Your task to perform on an android device: allow notifications from all sites in the chrome app Image 0: 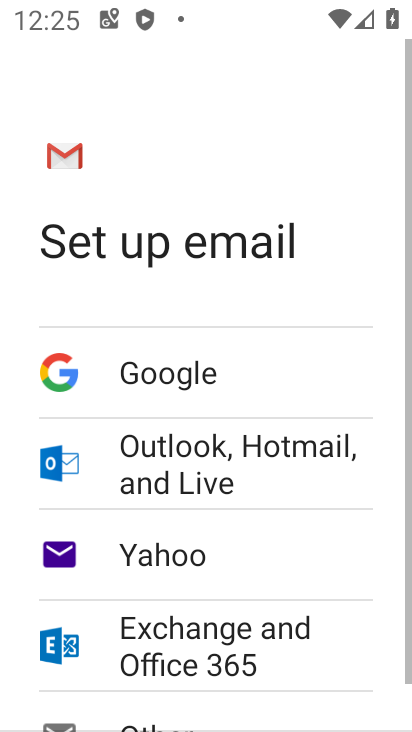
Step 0: press home button
Your task to perform on an android device: allow notifications from all sites in the chrome app Image 1: 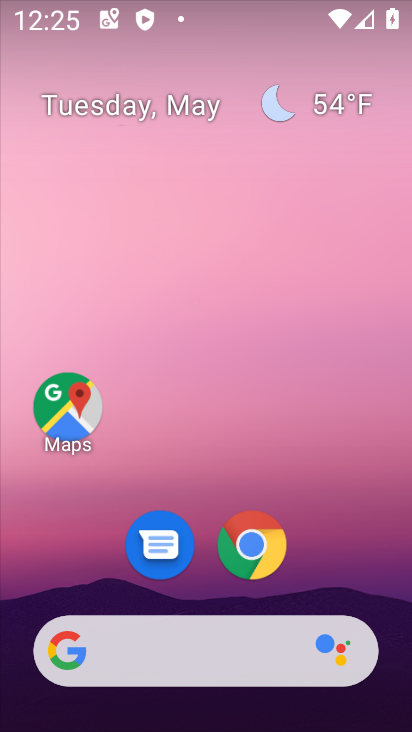
Step 1: click (245, 545)
Your task to perform on an android device: allow notifications from all sites in the chrome app Image 2: 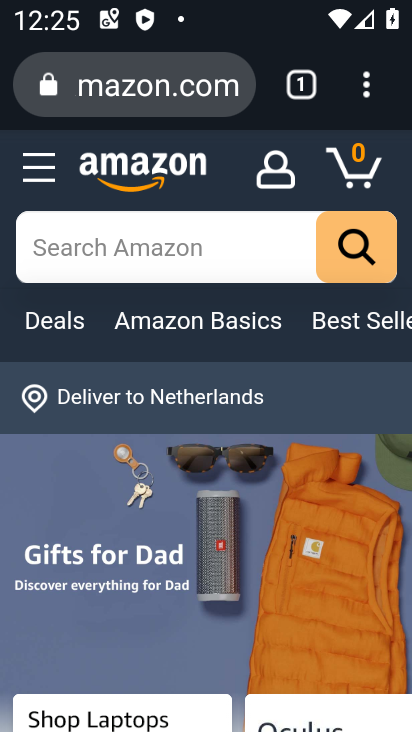
Step 2: click (376, 106)
Your task to perform on an android device: allow notifications from all sites in the chrome app Image 3: 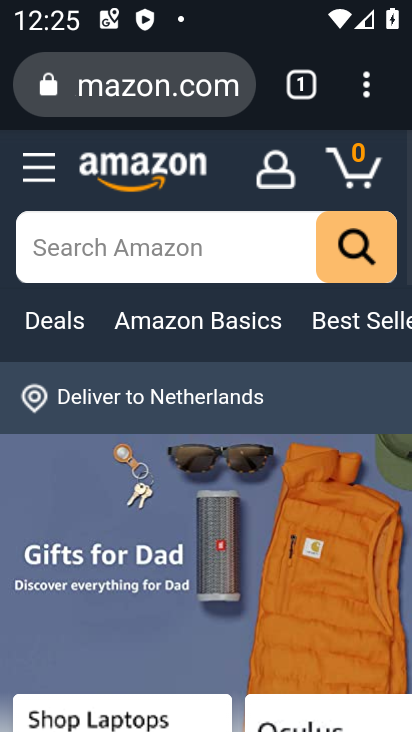
Step 3: click (360, 118)
Your task to perform on an android device: allow notifications from all sites in the chrome app Image 4: 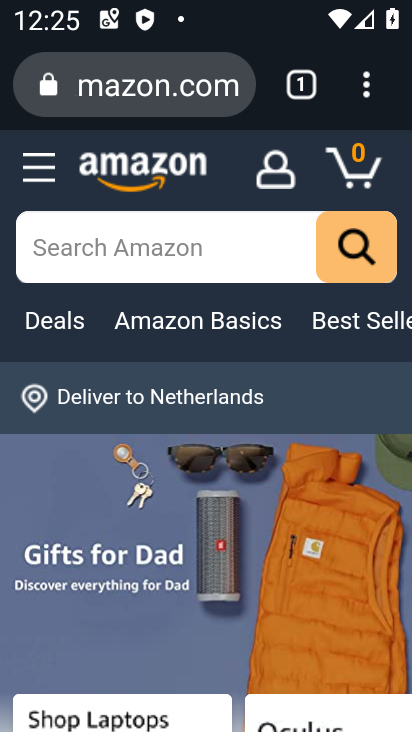
Step 4: click (361, 102)
Your task to perform on an android device: allow notifications from all sites in the chrome app Image 5: 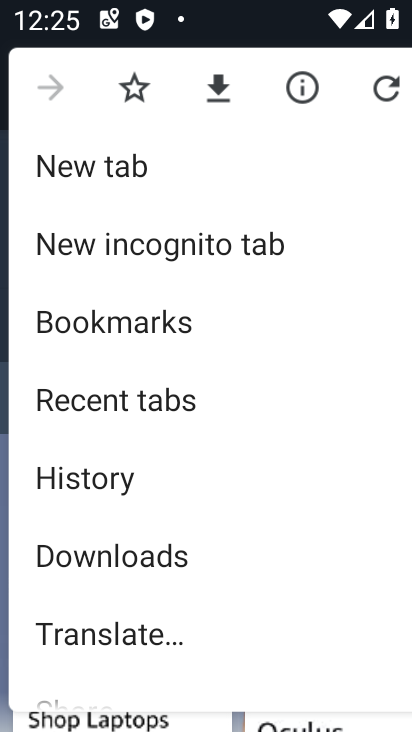
Step 5: drag from (220, 606) to (192, 296)
Your task to perform on an android device: allow notifications from all sites in the chrome app Image 6: 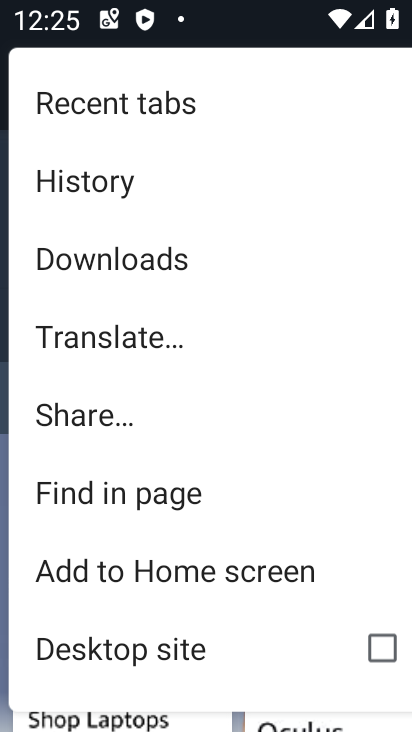
Step 6: drag from (130, 645) to (134, 311)
Your task to perform on an android device: allow notifications from all sites in the chrome app Image 7: 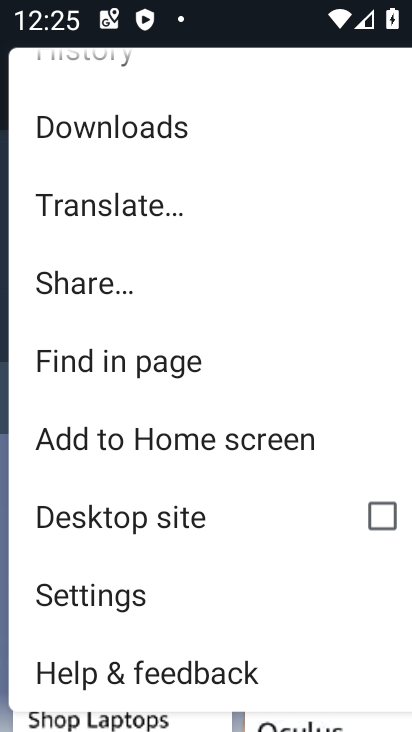
Step 7: click (122, 598)
Your task to perform on an android device: allow notifications from all sites in the chrome app Image 8: 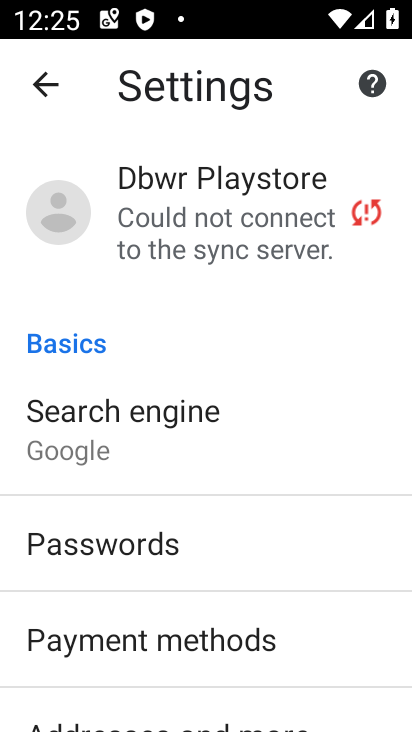
Step 8: drag from (240, 557) to (208, 390)
Your task to perform on an android device: allow notifications from all sites in the chrome app Image 9: 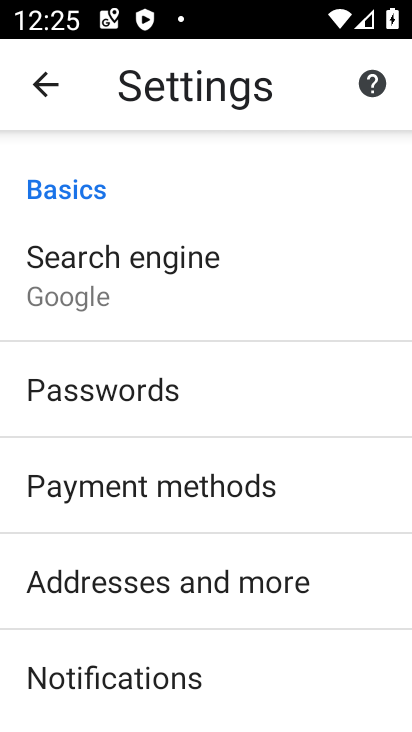
Step 9: click (181, 667)
Your task to perform on an android device: allow notifications from all sites in the chrome app Image 10: 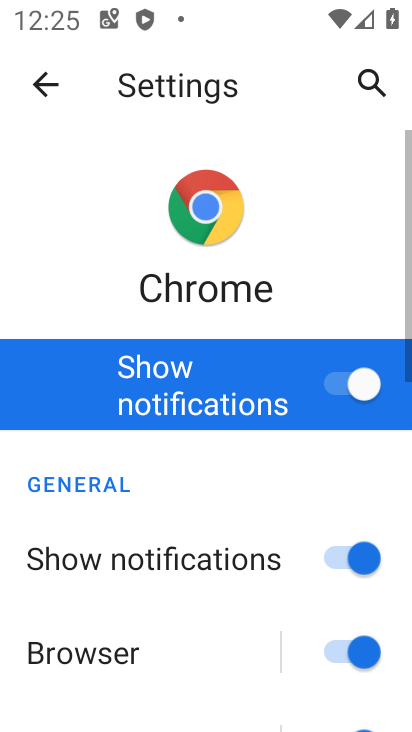
Step 10: task complete